Your task to perform on an android device: What is the news today? Image 0: 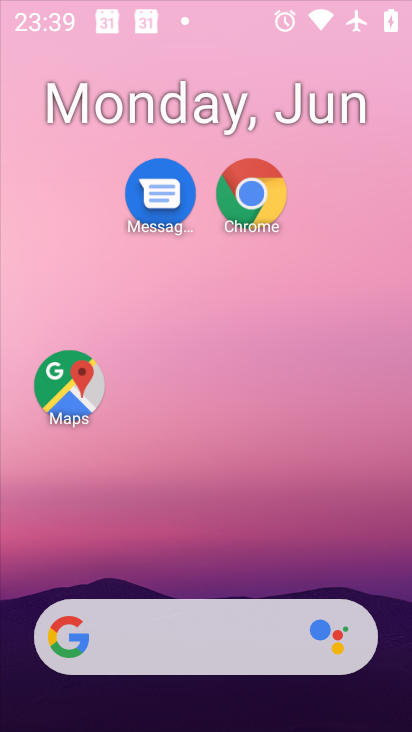
Step 0: click (272, 208)
Your task to perform on an android device: What is the news today? Image 1: 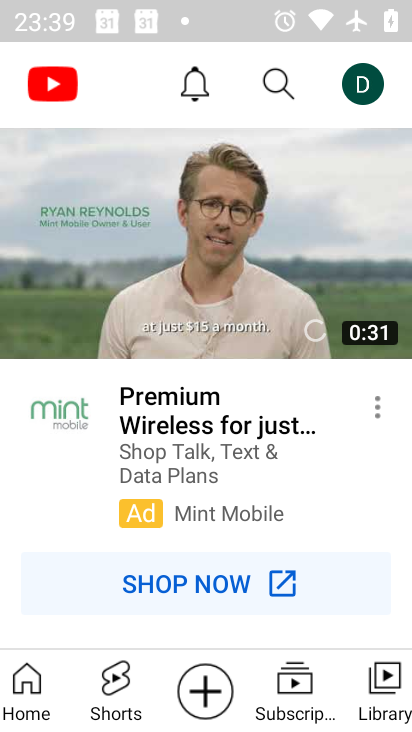
Step 1: press home button
Your task to perform on an android device: What is the news today? Image 2: 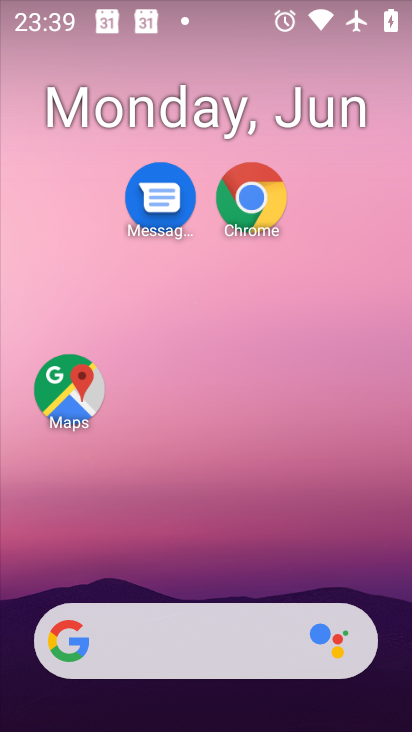
Step 2: drag from (236, 540) to (194, 123)
Your task to perform on an android device: What is the news today? Image 3: 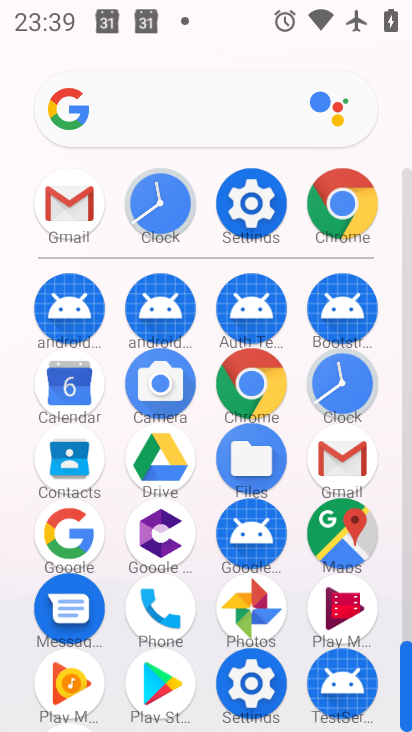
Step 3: click (76, 541)
Your task to perform on an android device: What is the news today? Image 4: 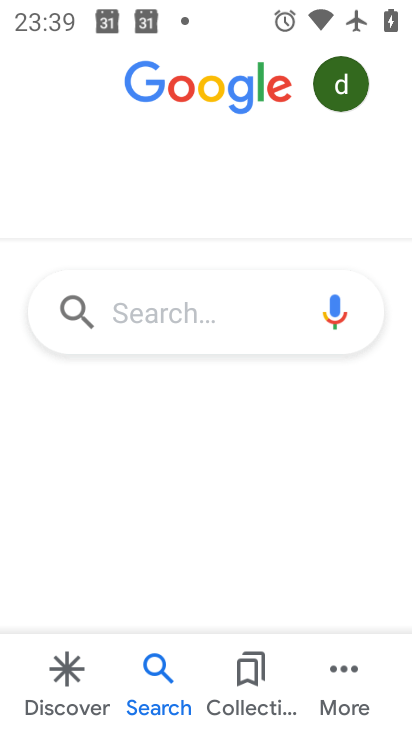
Step 4: click (149, 322)
Your task to perform on an android device: What is the news today? Image 5: 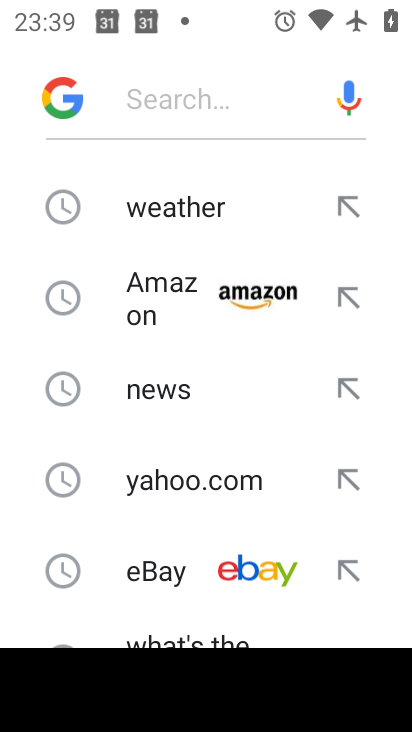
Step 5: click (170, 391)
Your task to perform on an android device: What is the news today? Image 6: 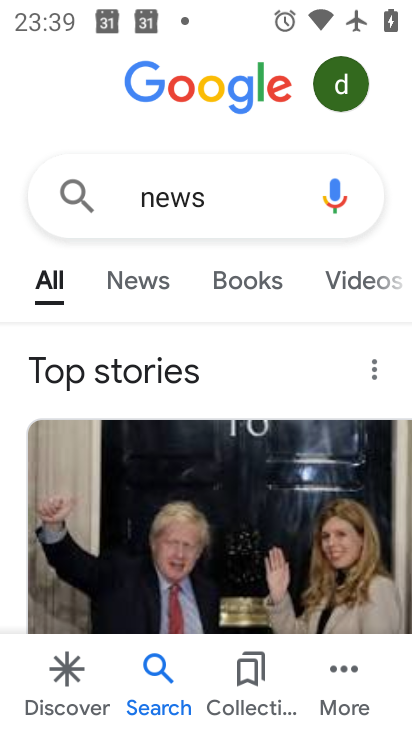
Step 6: click (137, 283)
Your task to perform on an android device: What is the news today? Image 7: 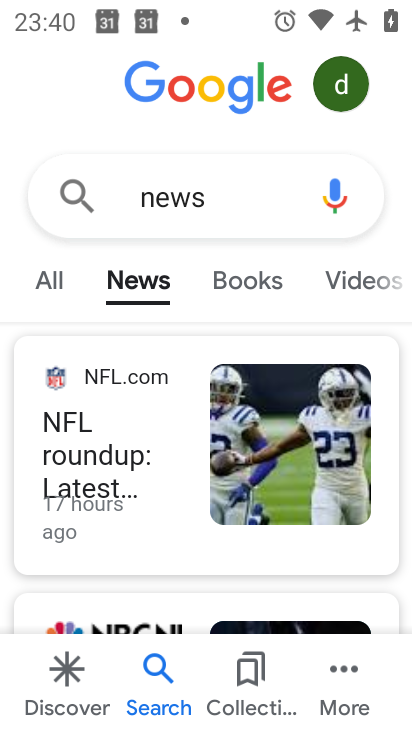
Step 7: task complete